Your task to perform on an android device: move a message to another label in the gmail app Image 0: 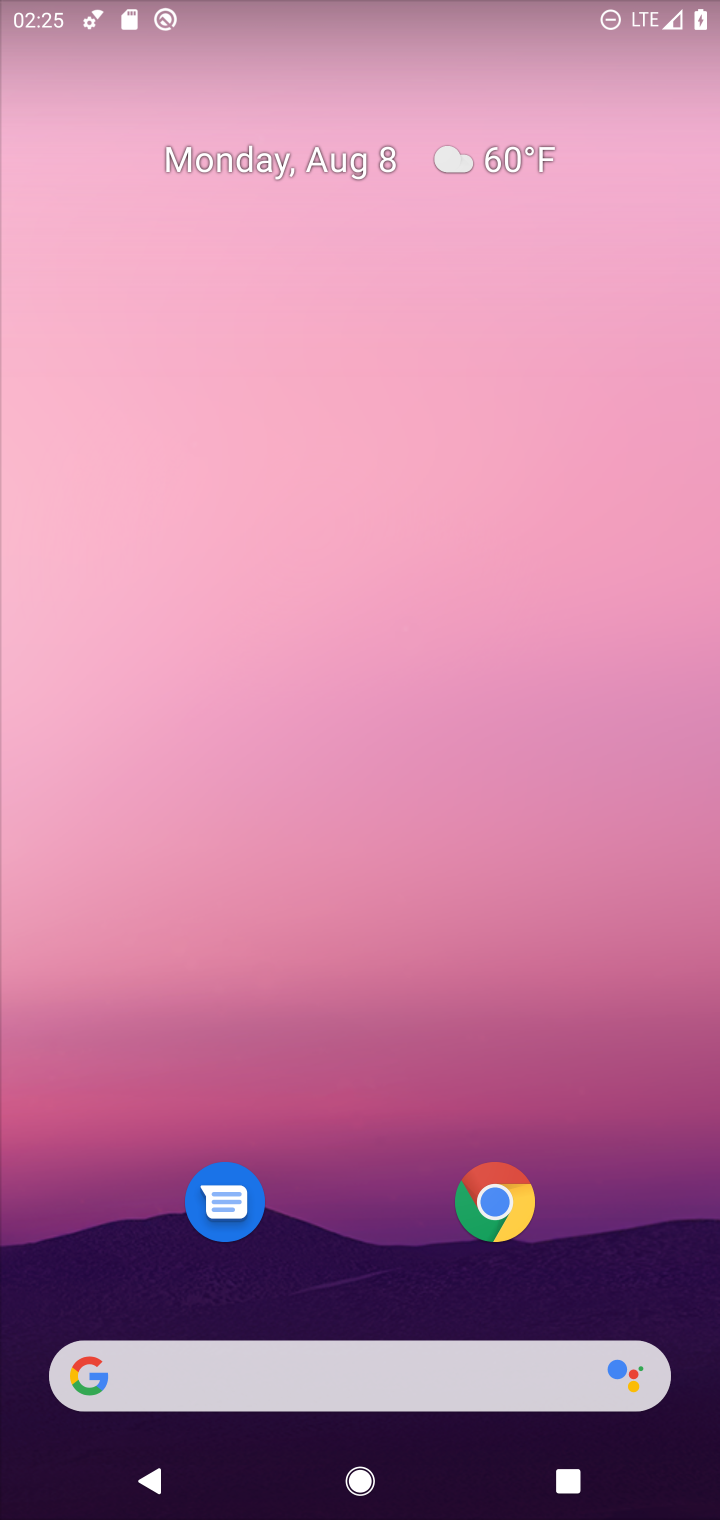
Step 0: press home button
Your task to perform on an android device: move a message to another label in the gmail app Image 1: 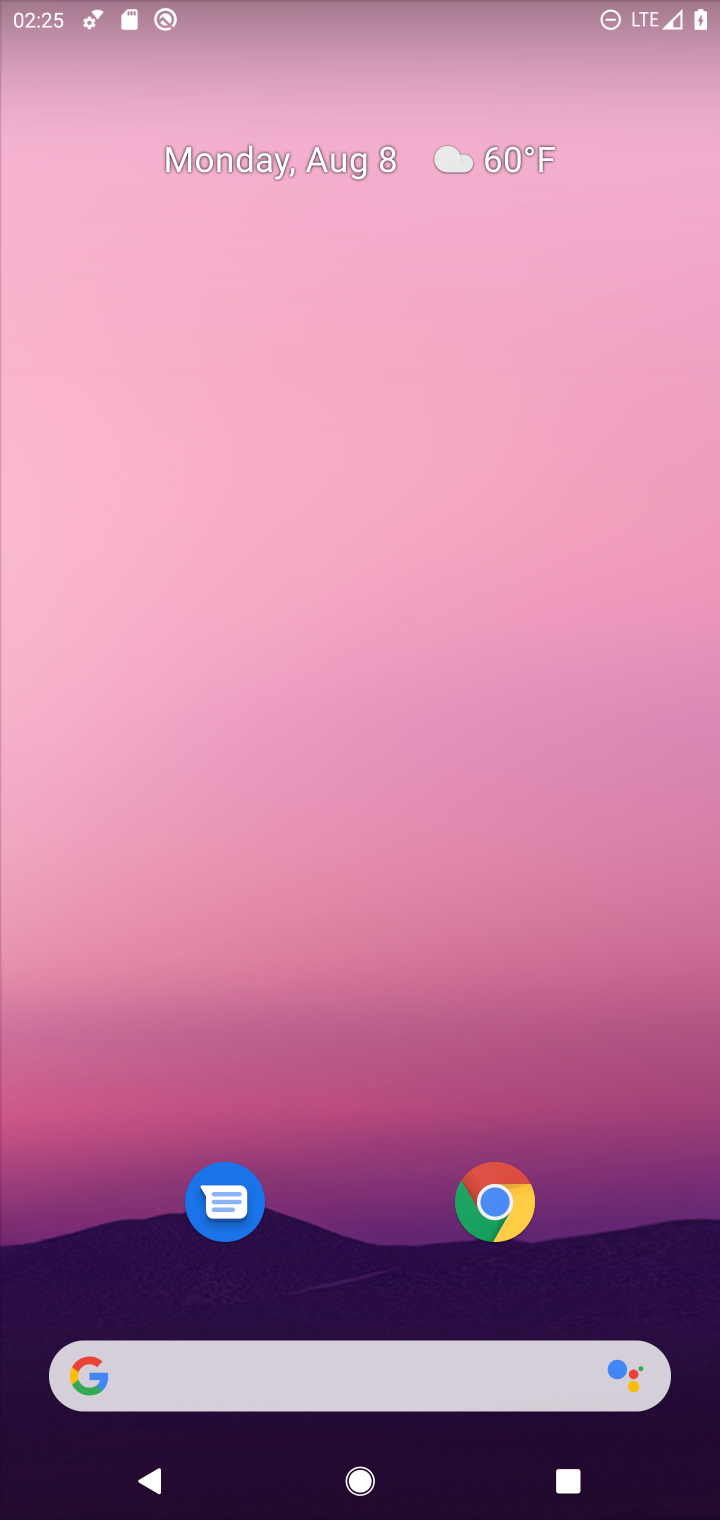
Step 1: drag from (651, 1244) to (621, 229)
Your task to perform on an android device: move a message to another label in the gmail app Image 2: 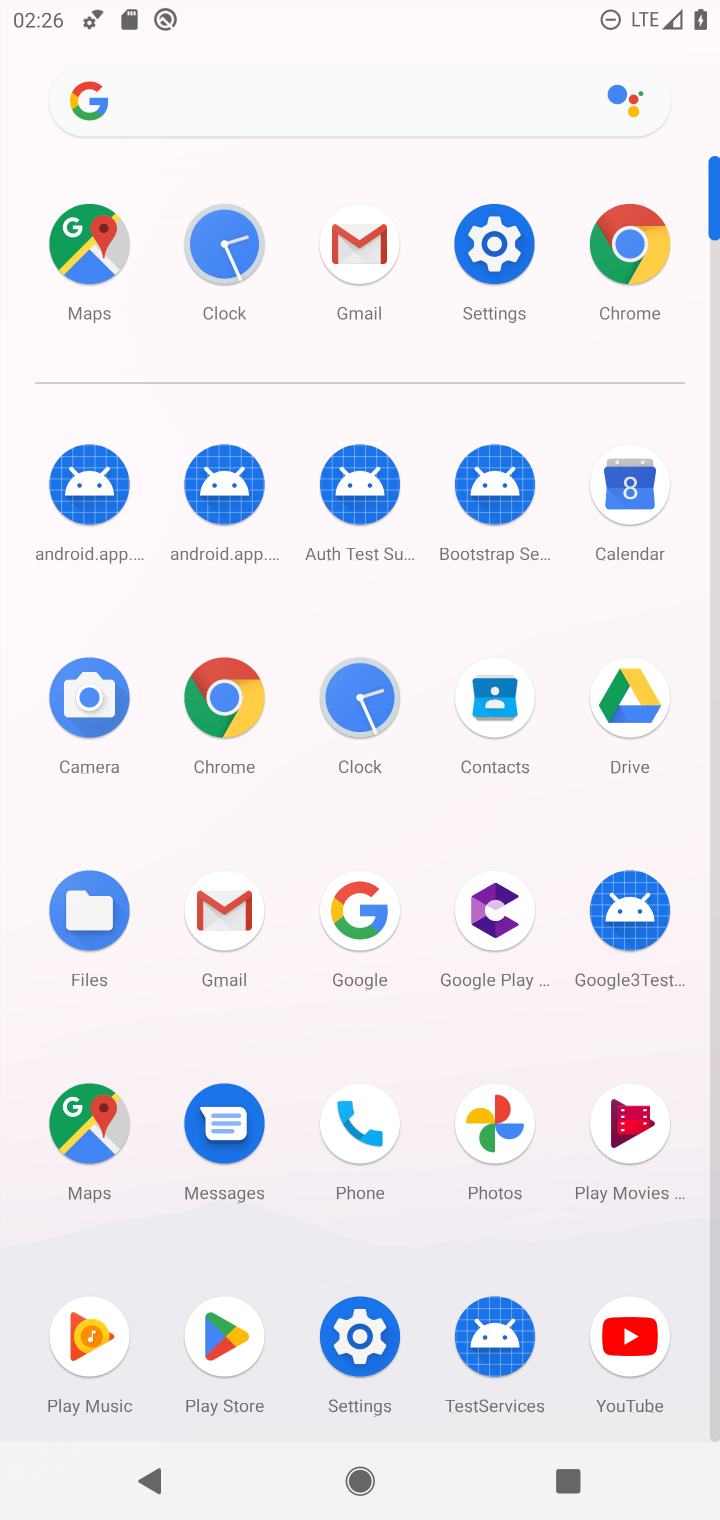
Step 2: click (228, 914)
Your task to perform on an android device: move a message to another label in the gmail app Image 3: 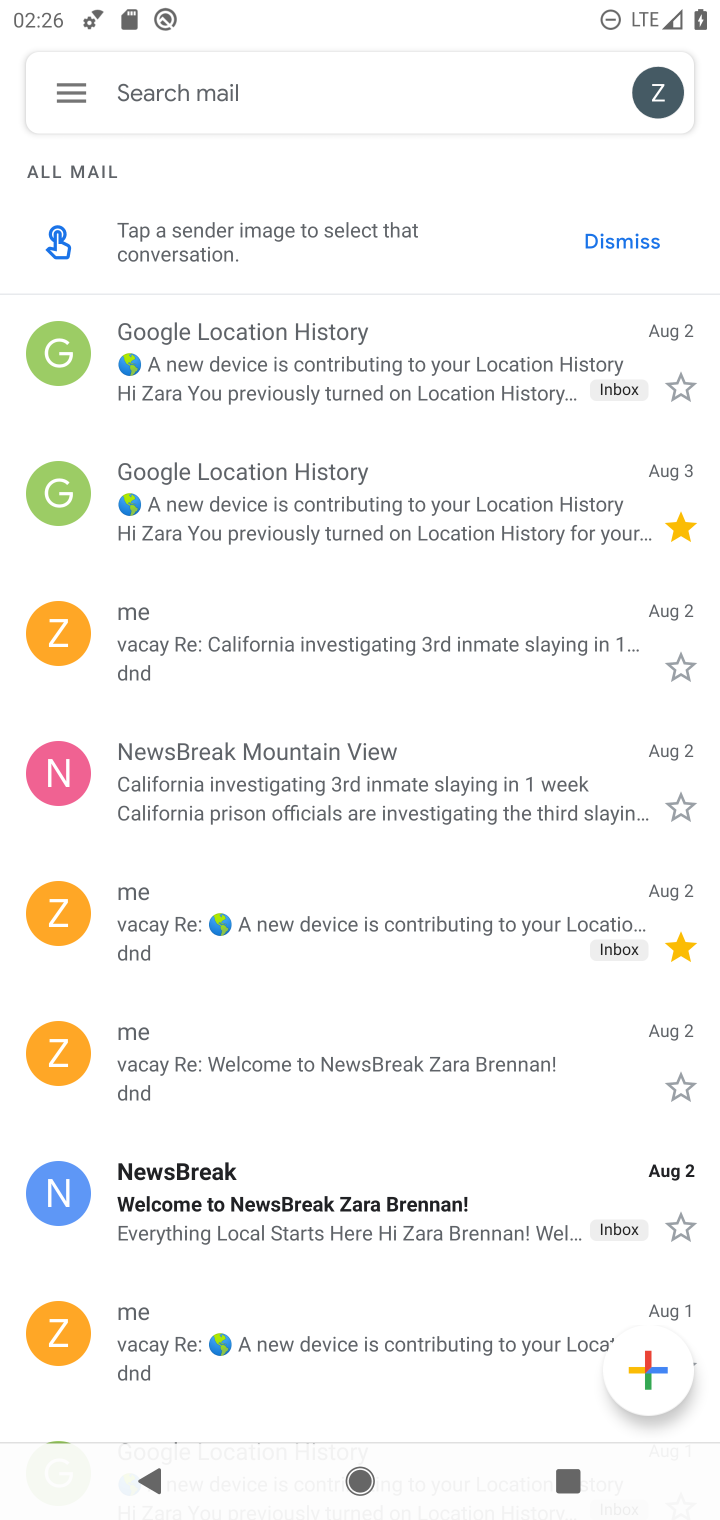
Step 3: click (376, 357)
Your task to perform on an android device: move a message to another label in the gmail app Image 4: 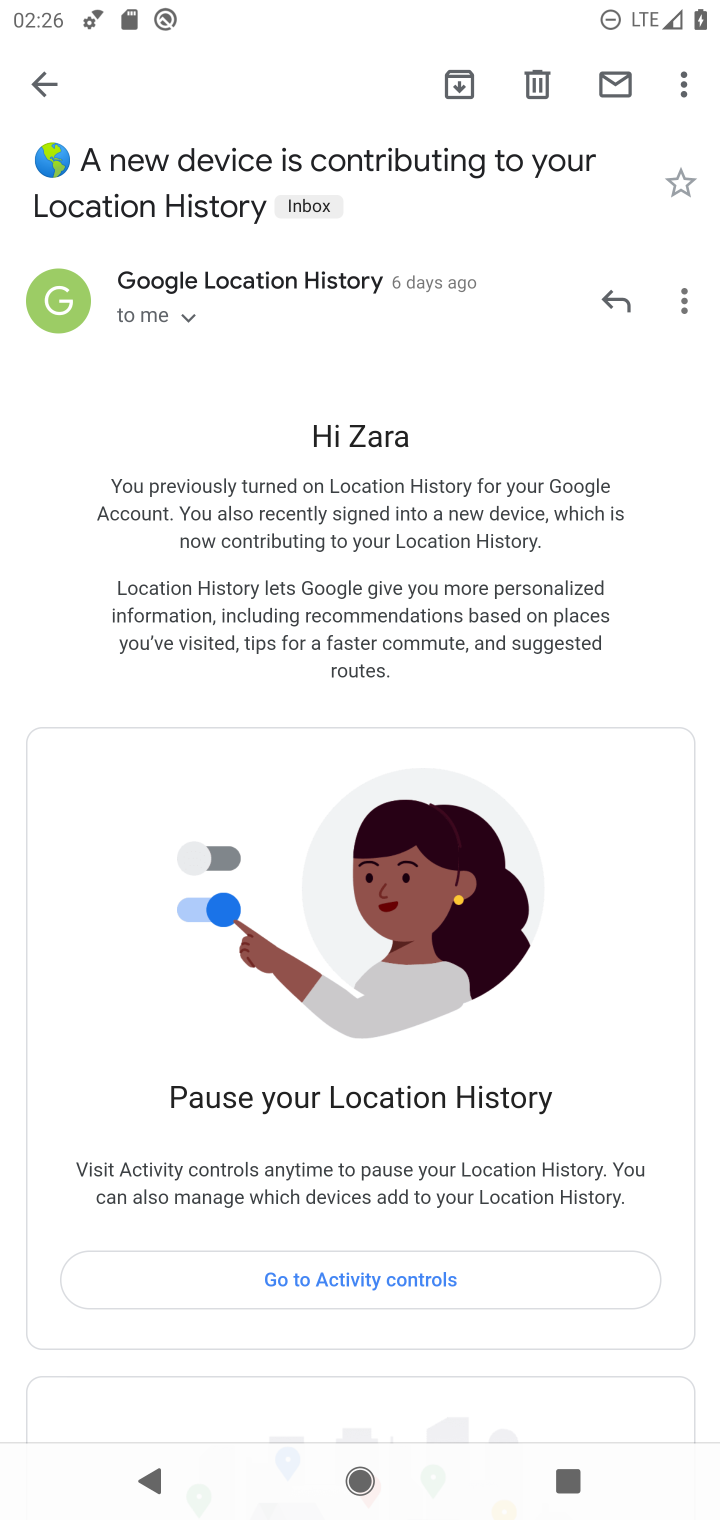
Step 4: click (683, 84)
Your task to perform on an android device: move a message to another label in the gmail app Image 5: 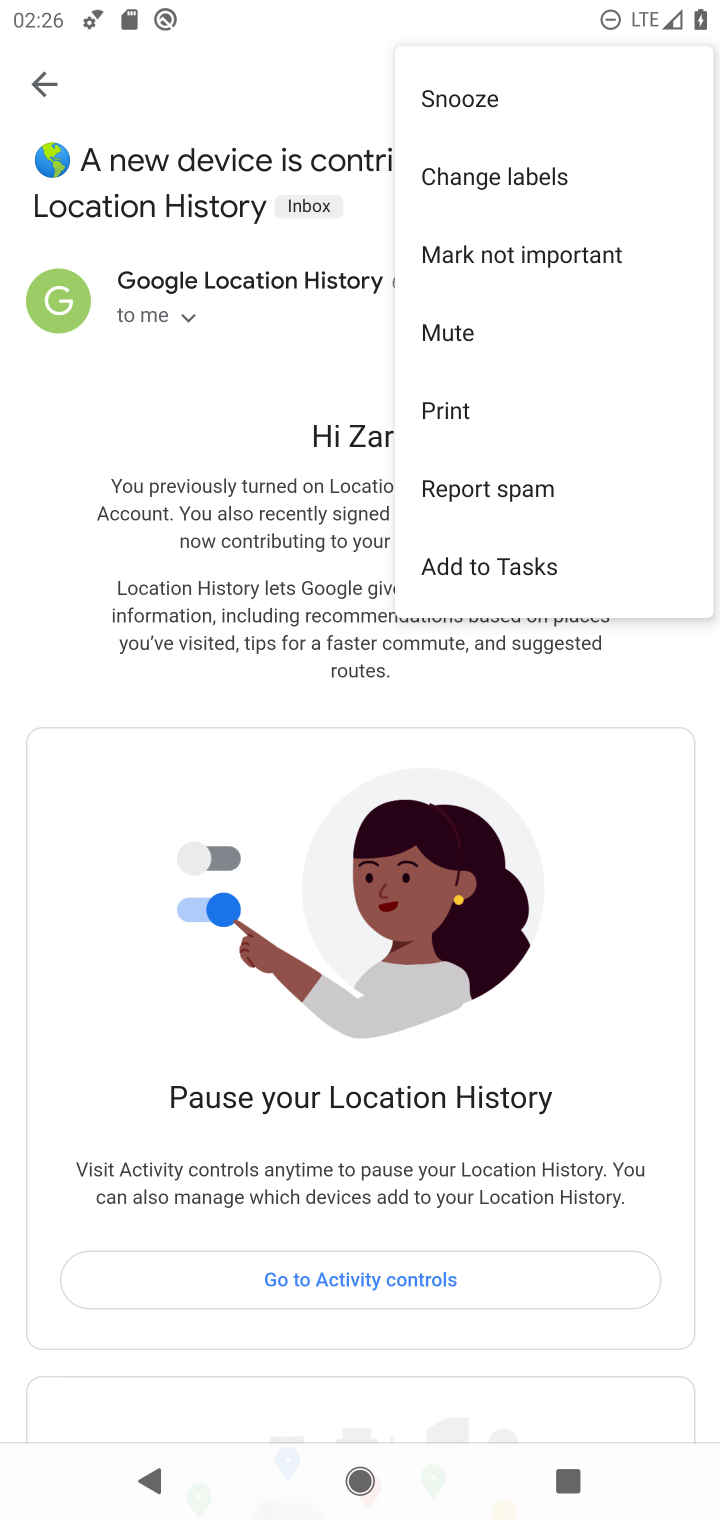
Step 5: click (31, 81)
Your task to perform on an android device: move a message to another label in the gmail app Image 6: 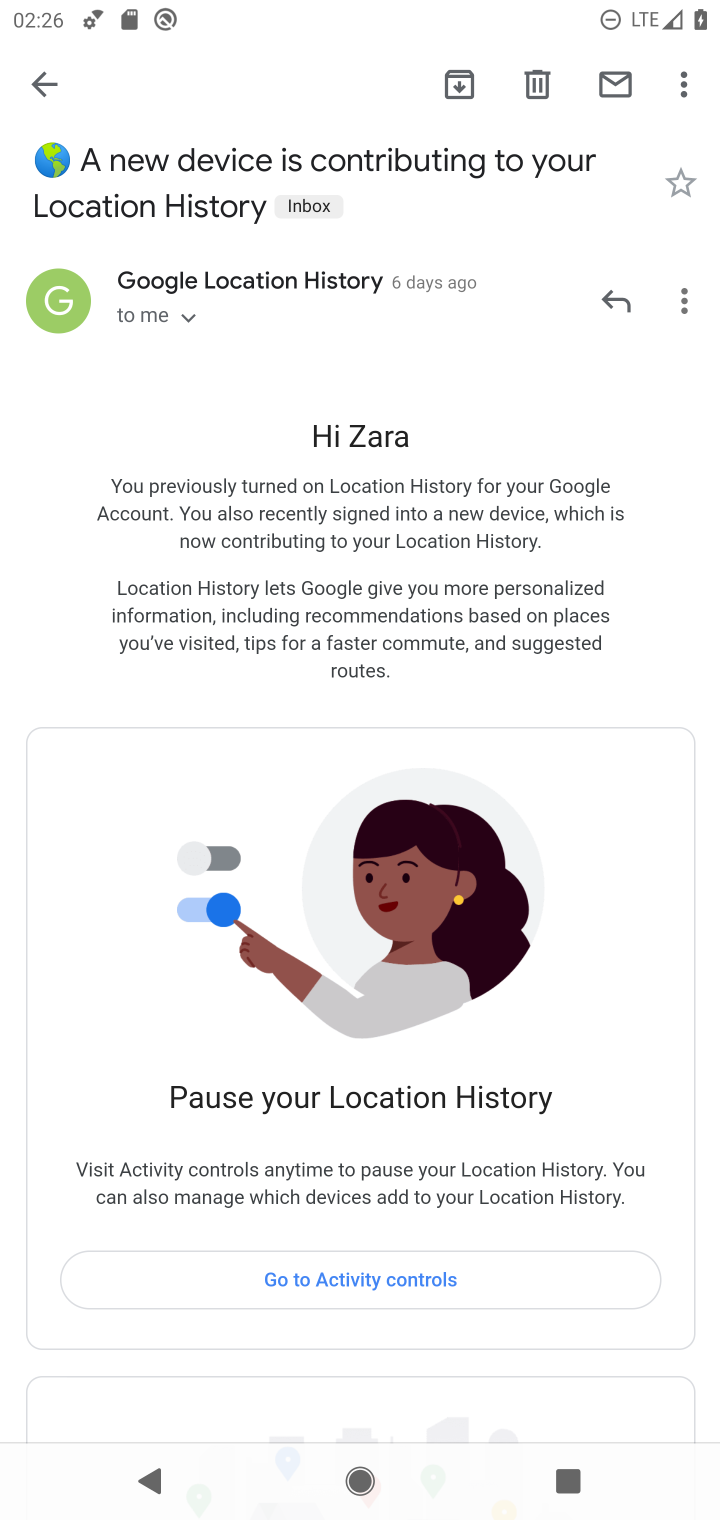
Step 6: click (34, 82)
Your task to perform on an android device: move a message to another label in the gmail app Image 7: 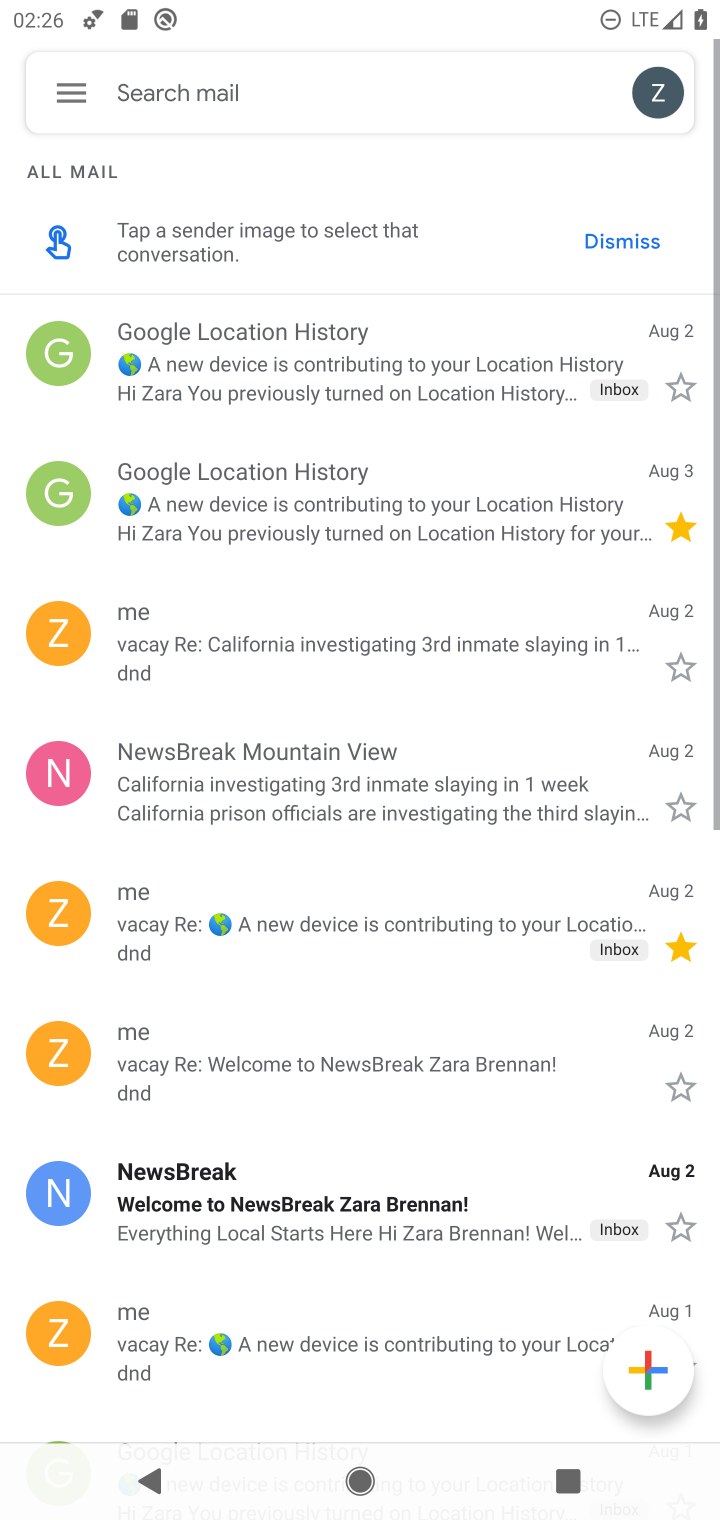
Step 7: click (361, 622)
Your task to perform on an android device: move a message to another label in the gmail app Image 8: 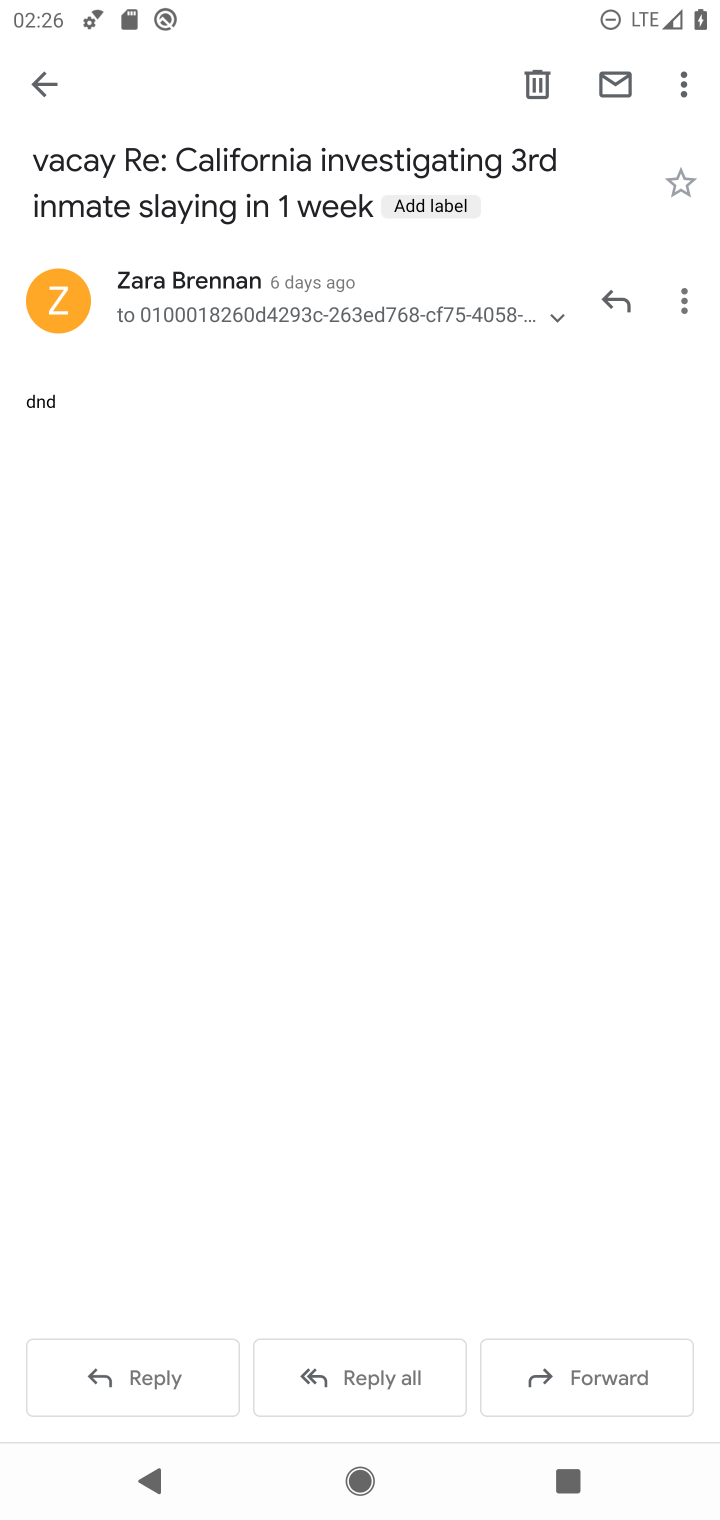
Step 8: click (687, 74)
Your task to perform on an android device: move a message to another label in the gmail app Image 9: 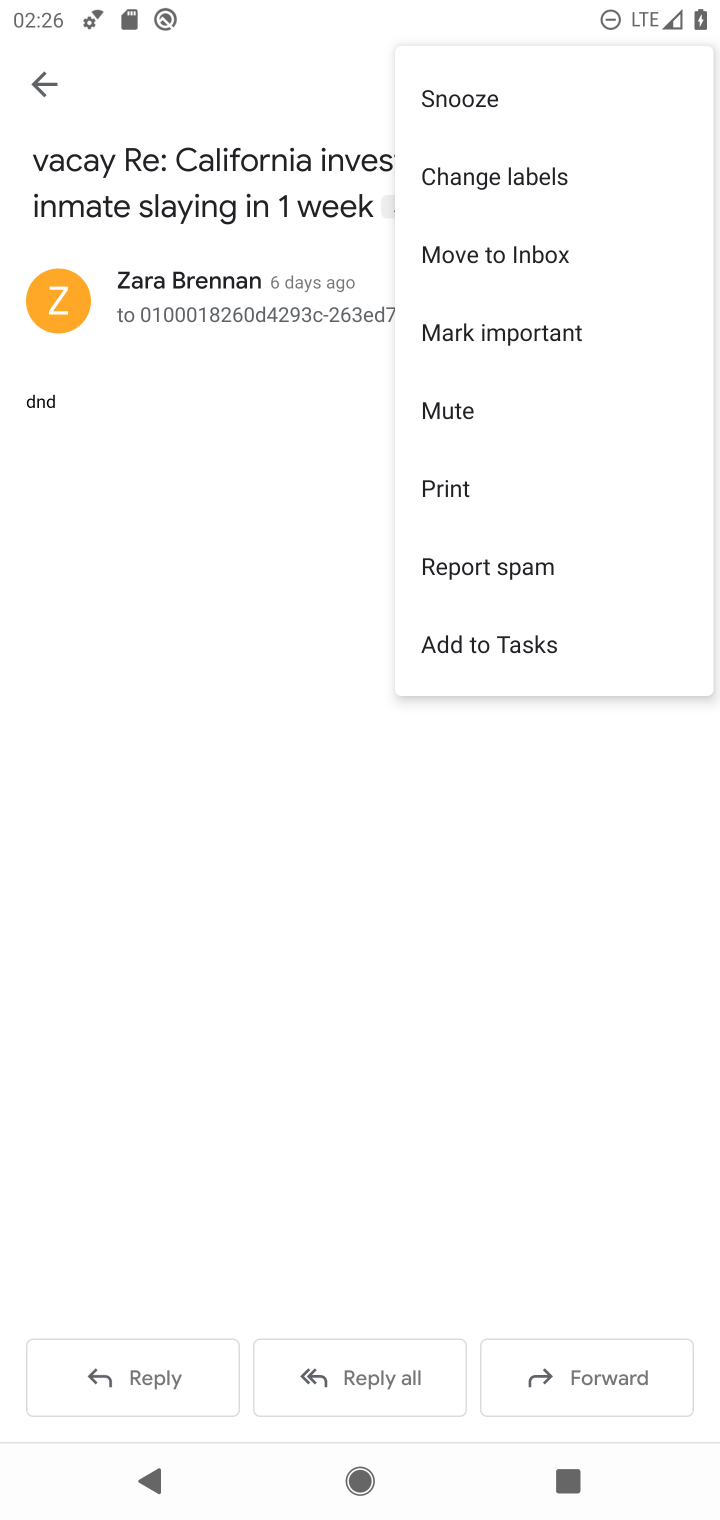
Step 9: click (580, 252)
Your task to perform on an android device: move a message to another label in the gmail app Image 10: 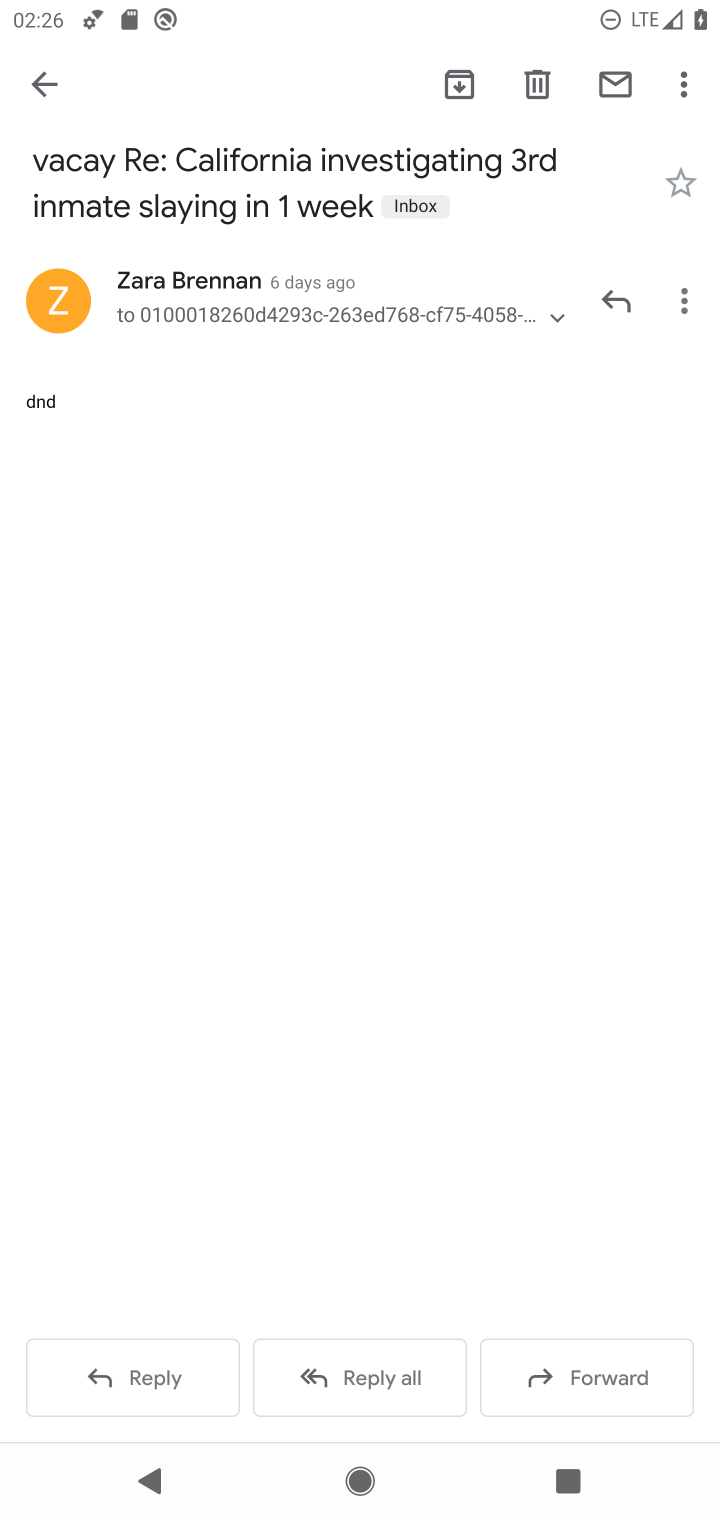
Step 10: task complete